Your task to perform on an android device: change timer sound Image 0: 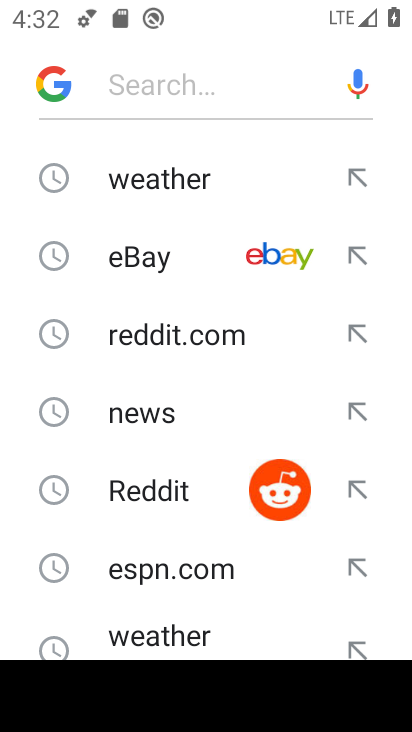
Step 0: press home button
Your task to perform on an android device: change timer sound Image 1: 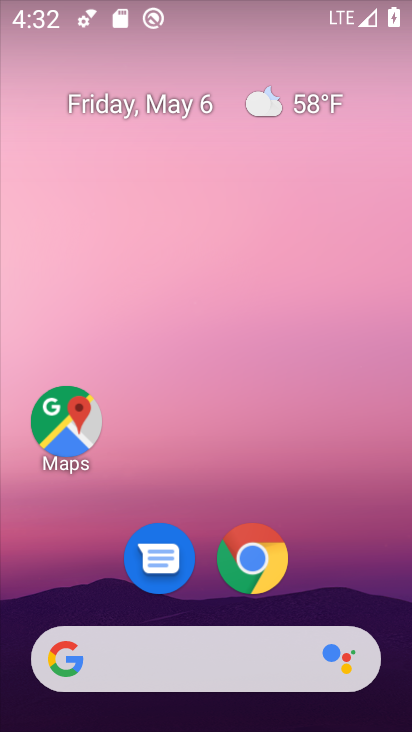
Step 1: drag from (298, 597) to (311, 13)
Your task to perform on an android device: change timer sound Image 2: 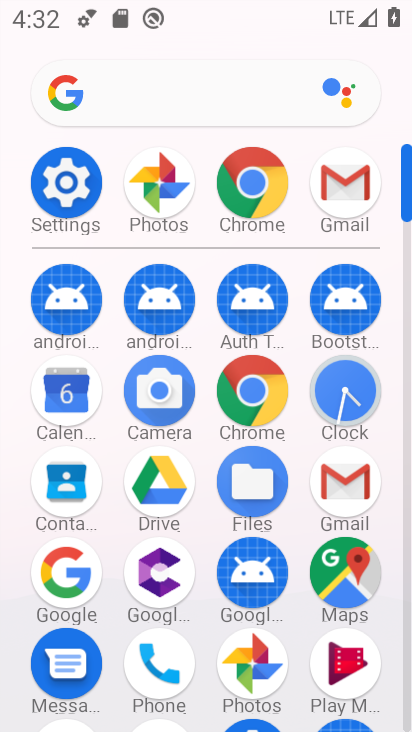
Step 2: click (346, 413)
Your task to perform on an android device: change timer sound Image 3: 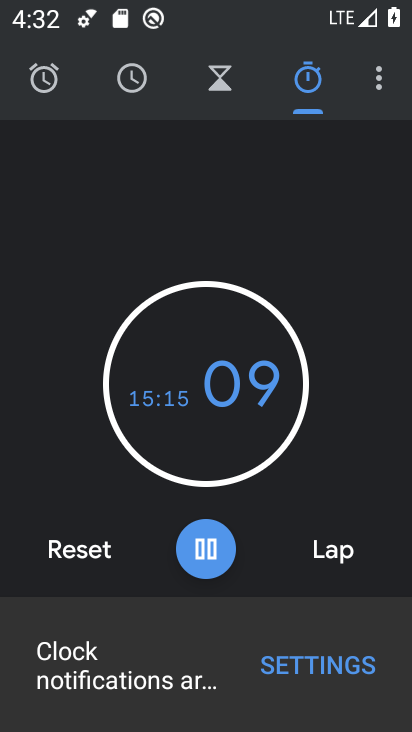
Step 3: click (225, 82)
Your task to perform on an android device: change timer sound Image 4: 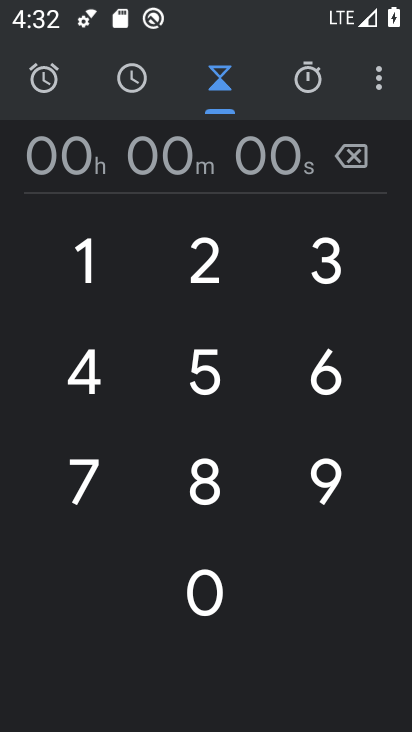
Step 4: click (205, 480)
Your task to perform on an android device: change timer sound Image 5: 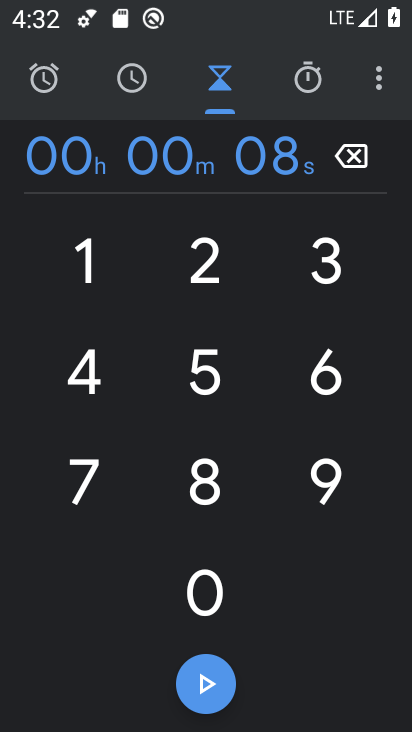
Step 5: click (200, 374)
Your task to perform on an android device: change timer sound Image 6: 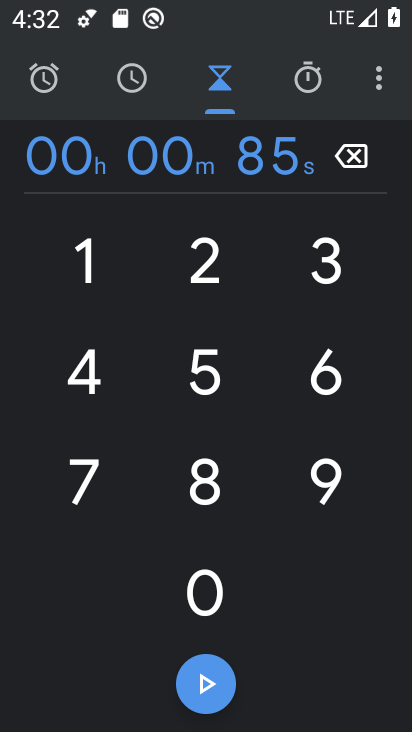
Step 6: click (201, 263)
Your task to perform on an android device: change timer sound Image 7: 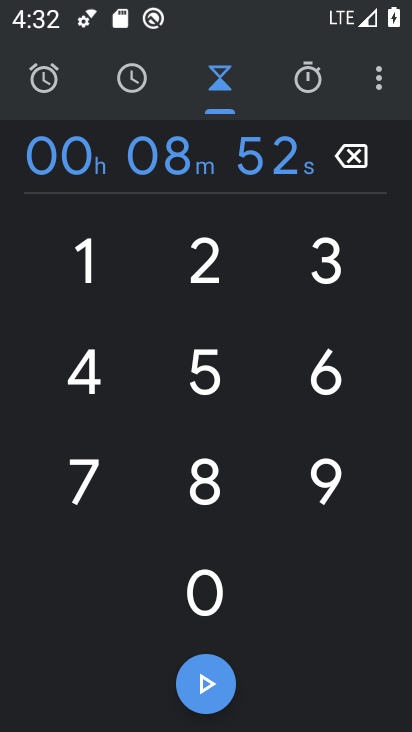
Step 7: click (303, 265)
Your task to perform on an android device: change timer sound Image 8: 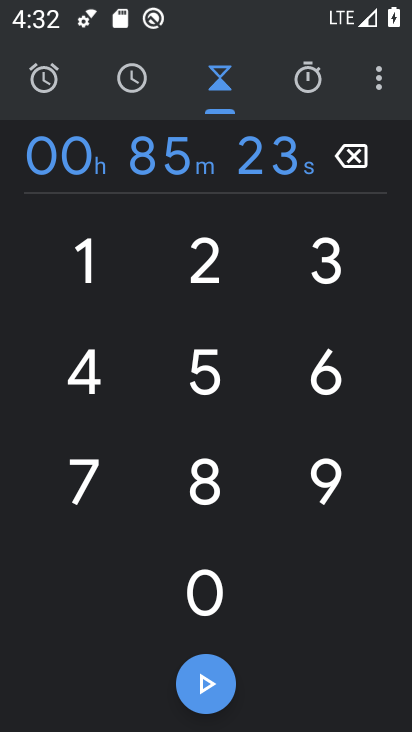
Step 8: click (104, 384)
Your task to perform on an android device: change timer sound Image 9: 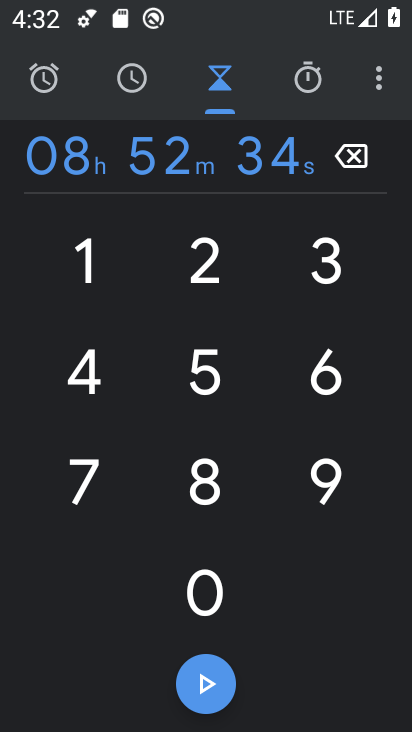
Step 9: click (86, 280)
Your task to perform on an android device: change timer sound Image 10: 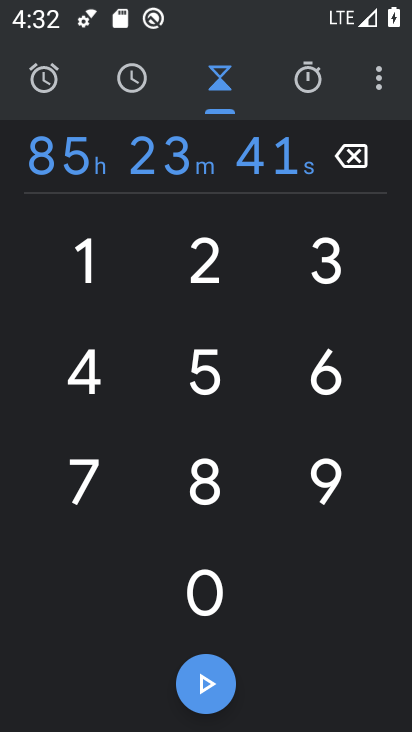
Step 10: click (215, 686)
Your task to perform on an android device: change timer sound Image 11: 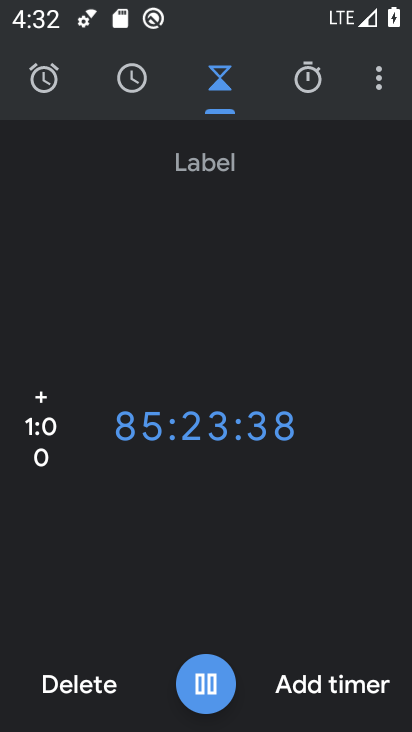
Step 11: task complete